Your task to perform on an android device: snooze an email in the gmail app Image 0: 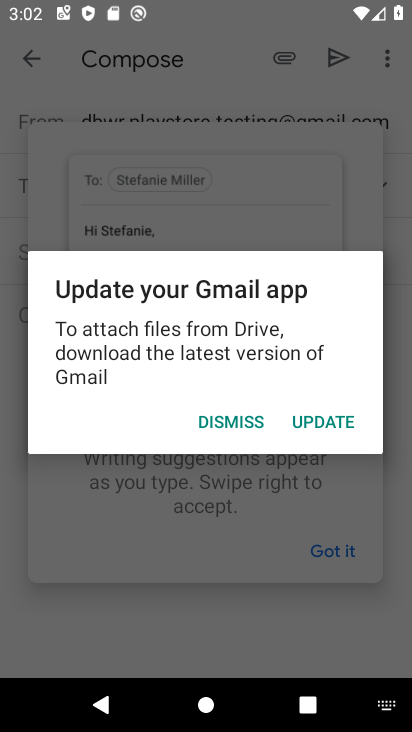
Step 0: press home button
Your task to perform on an android device: snooze an email in the gmail app Image 1: 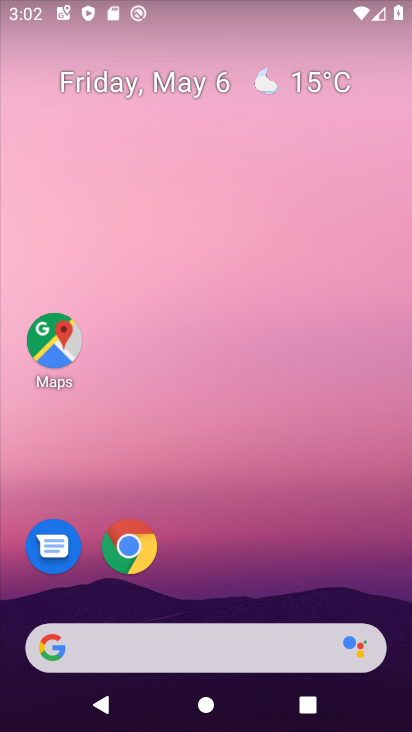
Step 1: drag from (274, 602) to (229, 150)
Your task to perform on an android device: snooze an email in the gmail app Image 2: 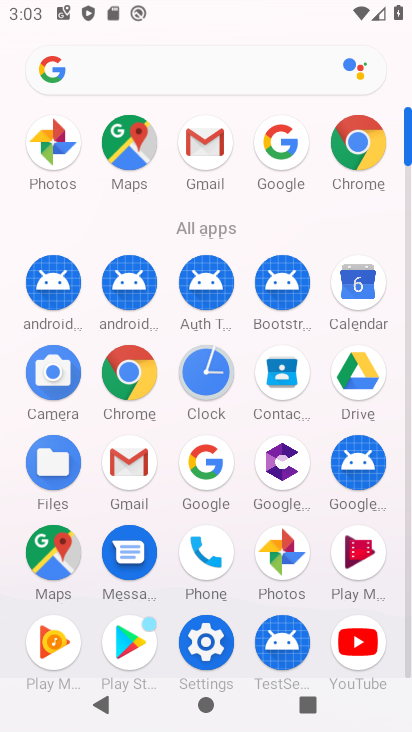
Step 2: click (207, 149)
Your task to perform on an android device: snooze an email in the gmail app Image 3: 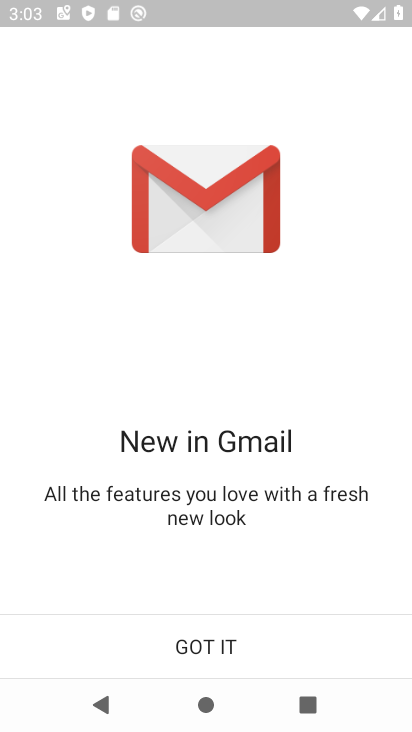
Step 3: click (224, 653)
Your task to perform on an android device: snooze an email in the gmail app Image 4: 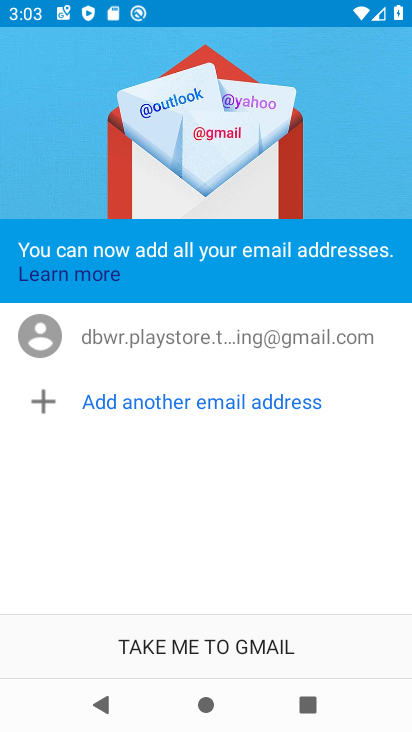
Step 4: click (224, 653)
Your task to perform on an android device: snooze an email in the gmail app Image 5: 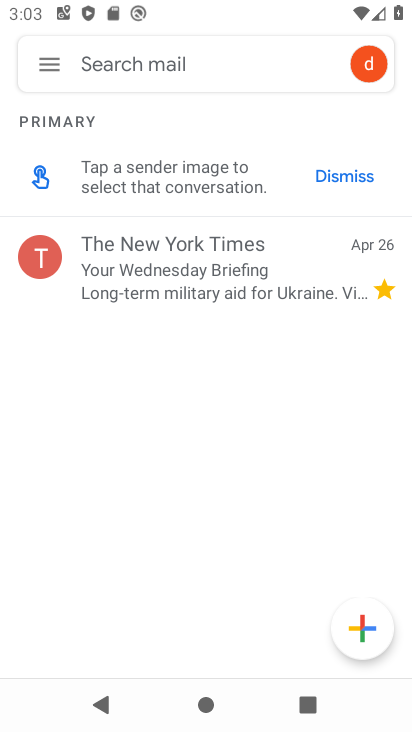
Step 5: click (182, 263)
Your task to perform on an android device: snooze an email in the gmail app Image 6: 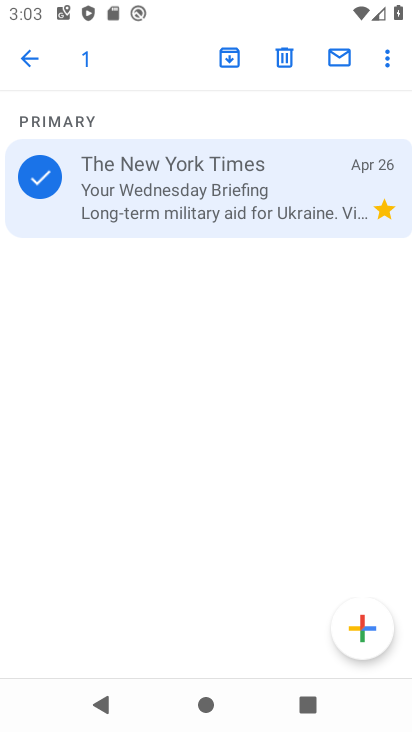
Step 6: click (382, 57)
Your task to perform on an android device: snooze an email in the gmail app Image 7: 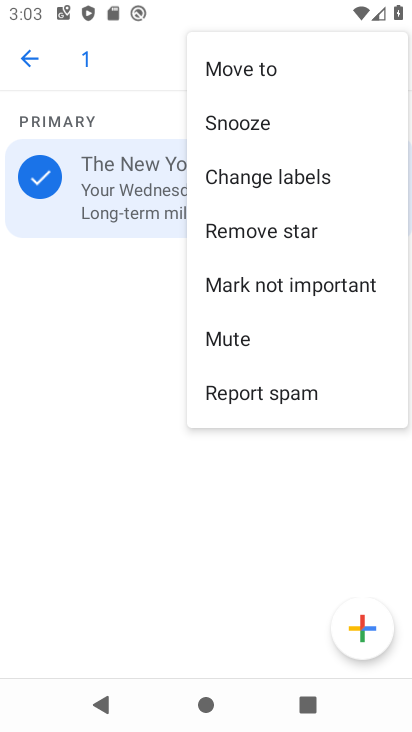
Step 7: click (297, 131)
Your task to perform on an android device: snooze an email in the gmail app Image 8: 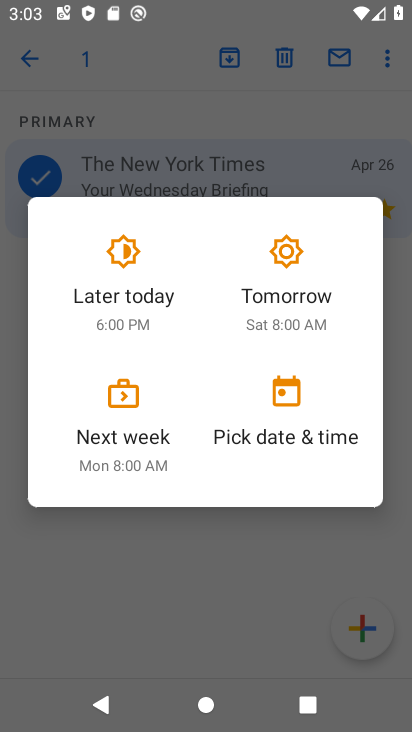
Step 8: click (287, 300)
Your task to perform on an android device: snooze an email in the gmail app Image 9: 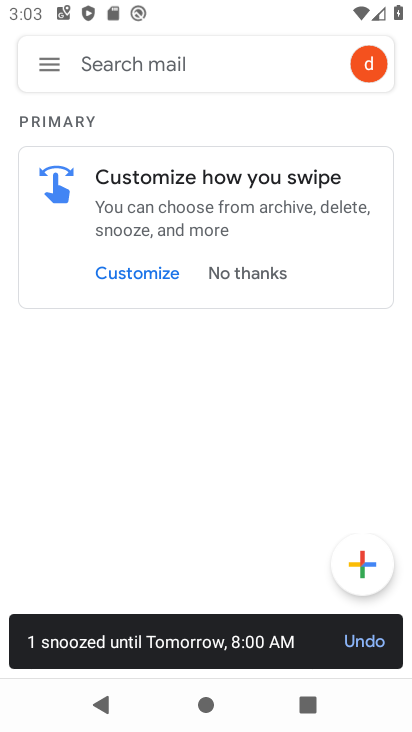
Step 9: task complete